Your task to perform on an android device: empty trash in google photos Image 0: 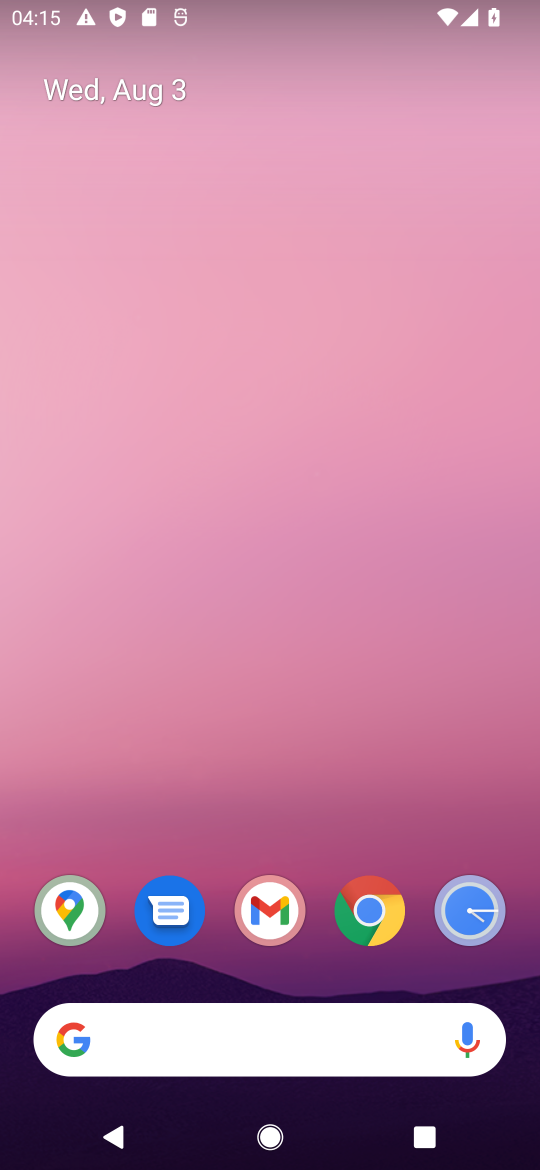
Step 0: press home button
Your task to perform on an android device: empty trash in google photos Image 1: 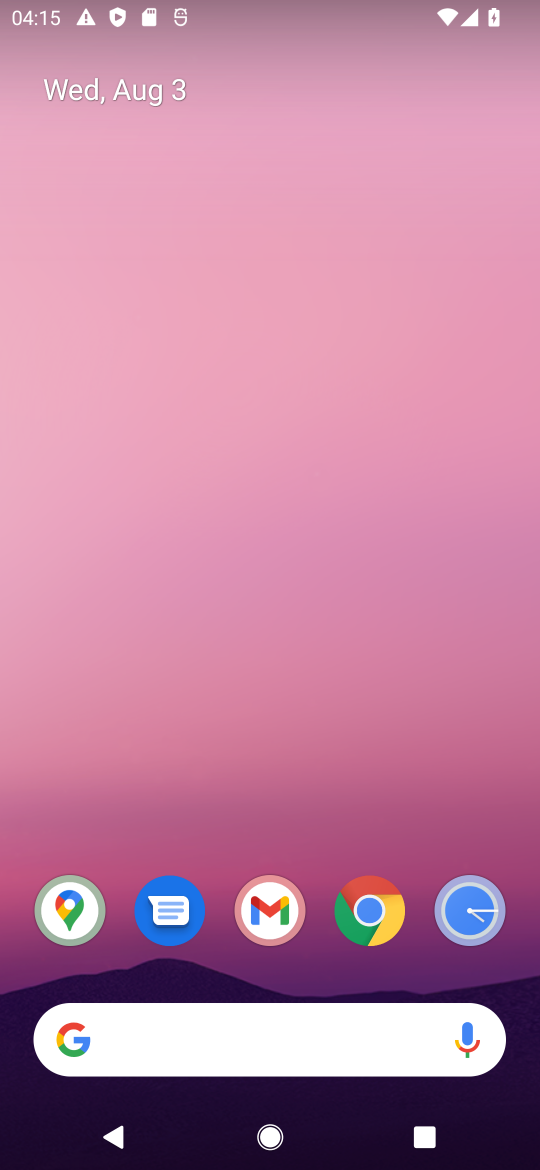
Step 1: drag from (308, 735) to (299, 1)
Your task to perform on an android device: empty trash in google photos Image 2: 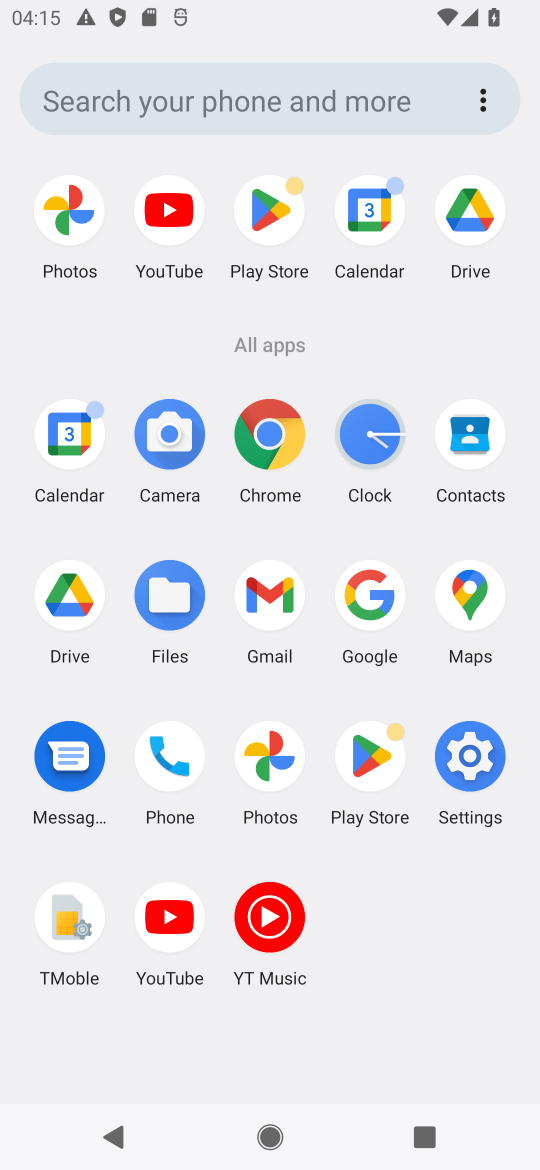
Step 2: click (270, 742)
Your task to perform on an android device: empty trash in google photos Image 3: 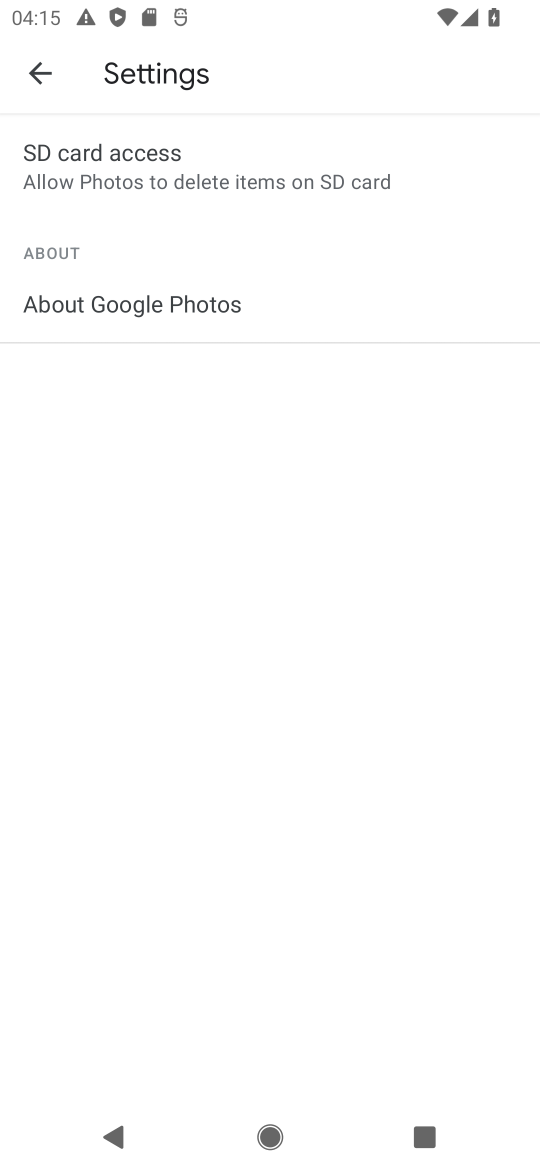
Step 3: click (43, 77)
Your task to perform on an android device: empty trash in google photos Image 4: 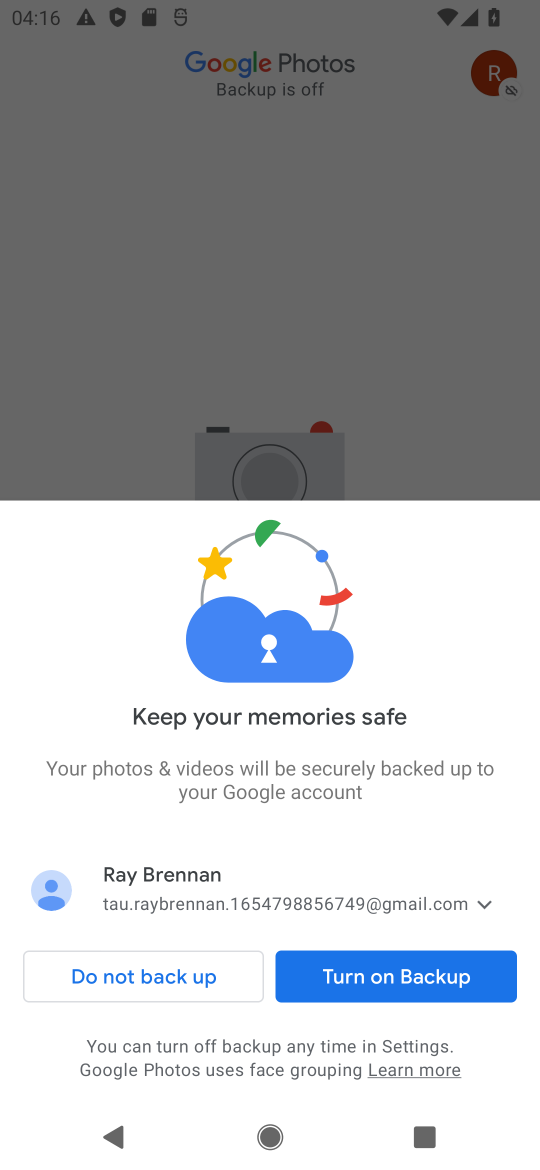
Step 4: click (398, 972)
Your task to perform on an android device: empty trash in google photos Image 5: 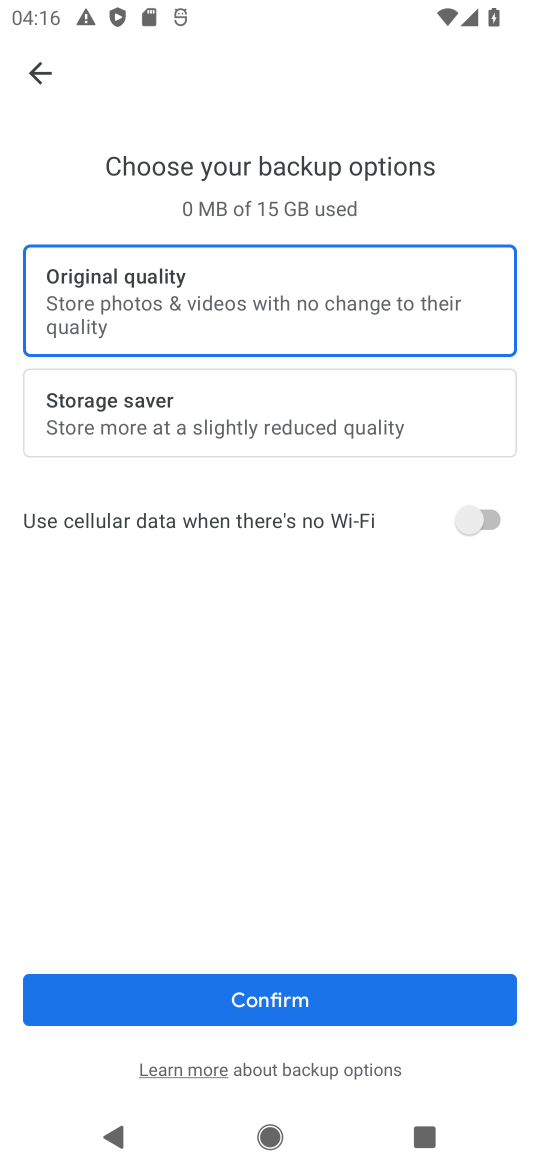
Step 5: click (270, 991)
Your task to perform on an android device: empty trash in google photos Image 6: 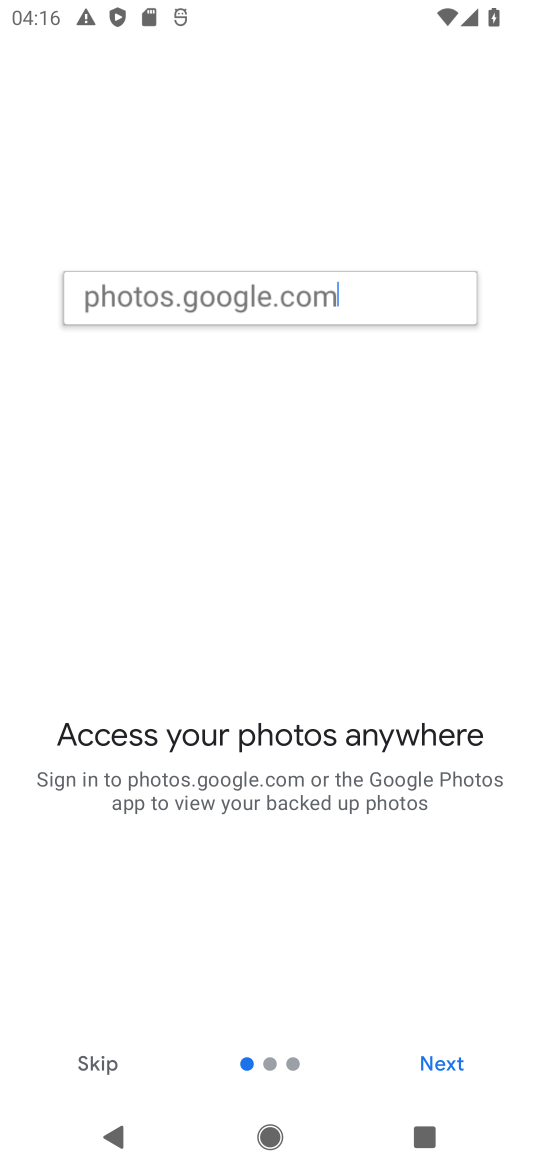
Step 6: click (94, 1055)
Your task to perform on an android device: empty trash in google photos Image 7: 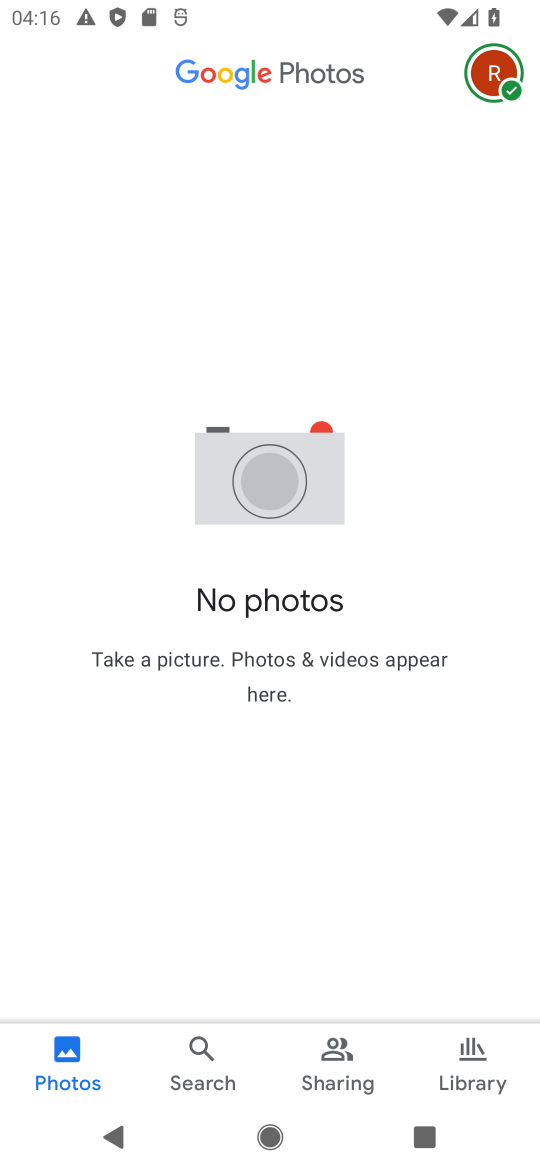
Step 7: click (491, 72)
Your task to perform on an android device: empty trash in google photos Image 8: 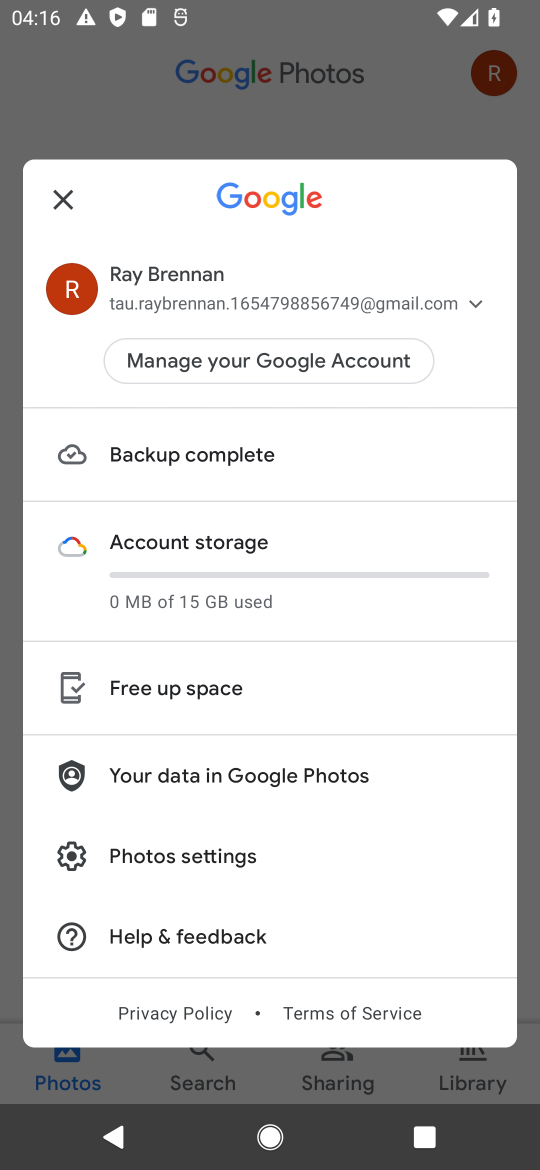
Step 8: click (66, 193)
Your task to perform on an android device: empty trash in google photos Image 9: 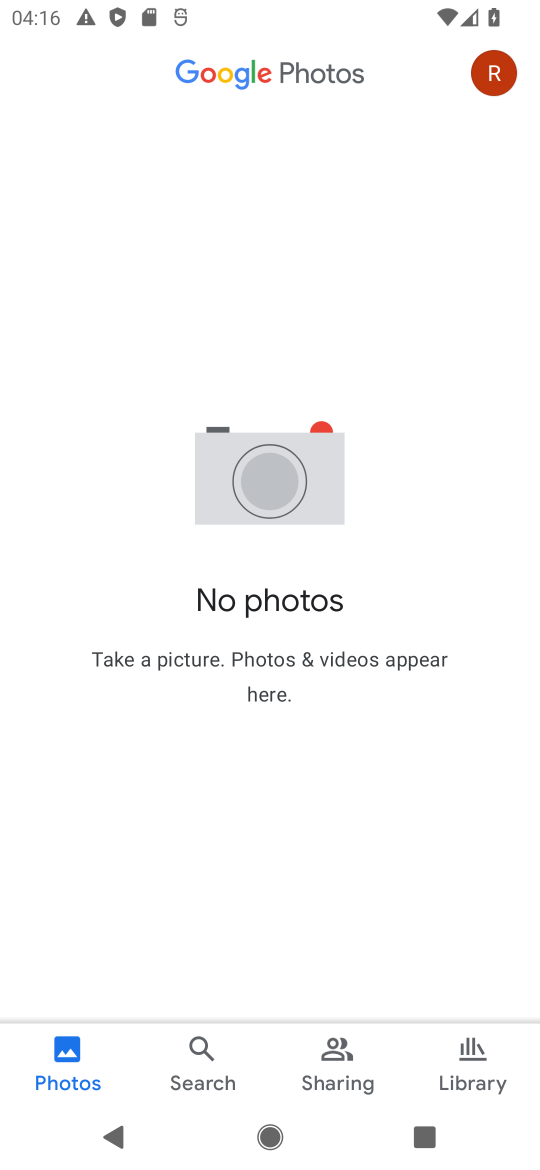
Step 9: click (468, 1047)
Your task to perform on an android device: empty trash in google photos Image 10: 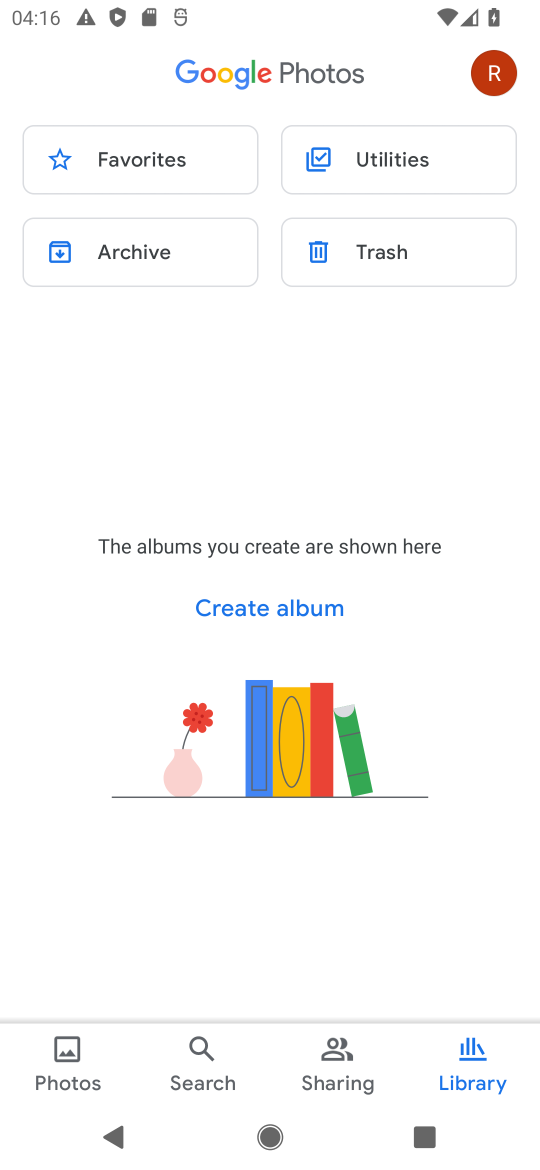
Step 10: click (367, 258)
Your task to perform on an android device: empty trash in google photos Image 11: 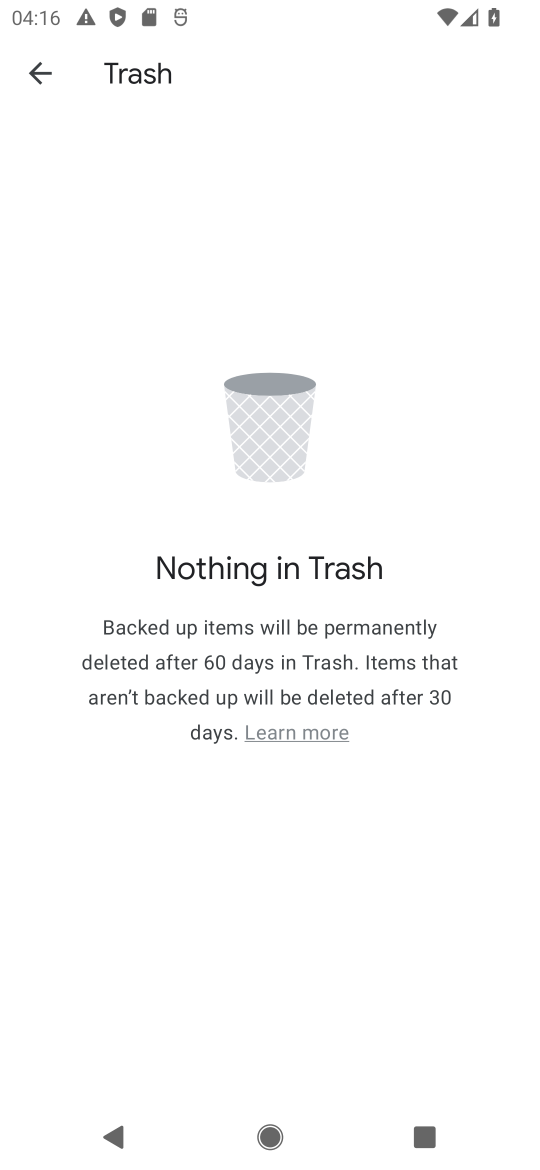
Step 11: task complete